Your task to perform on an android device: Show me popular videos on Youtube Image 0: 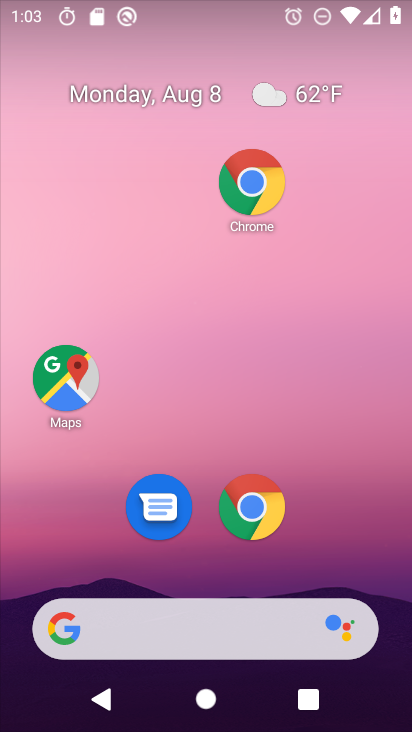
Step 0: drag from (337, 515) to (363, 55)
Your task to perform on an android device: Show me popular videos on Youtube Image 1: 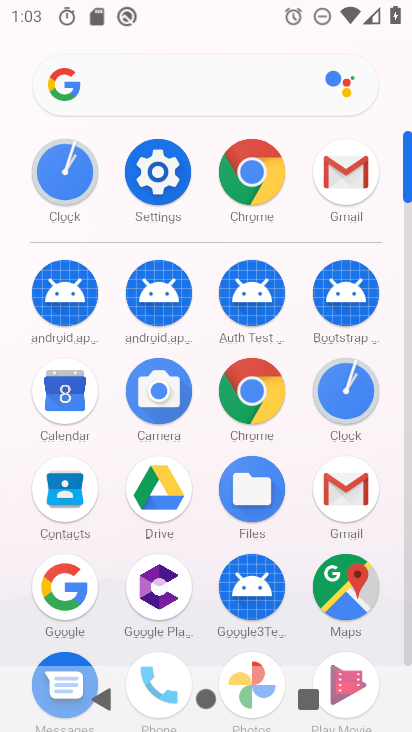
Step 1: drag from (297, 529) to (359, 111)
Your task to perform on an android device: Show me popular videos on Youtube Image 2: 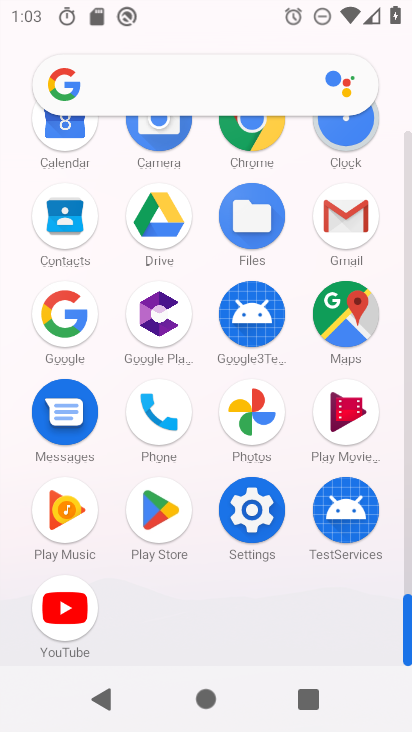
Step 2: click (78, 602)
Your task to perform on an android device: Show me popular videos on Youtube Image 3: 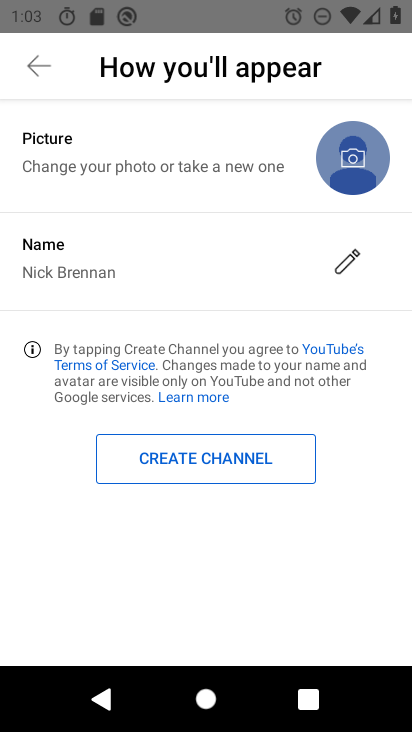
Step 3: press back button
Your task to perform on an android device: Show me popular videos on Youtube Image 4: 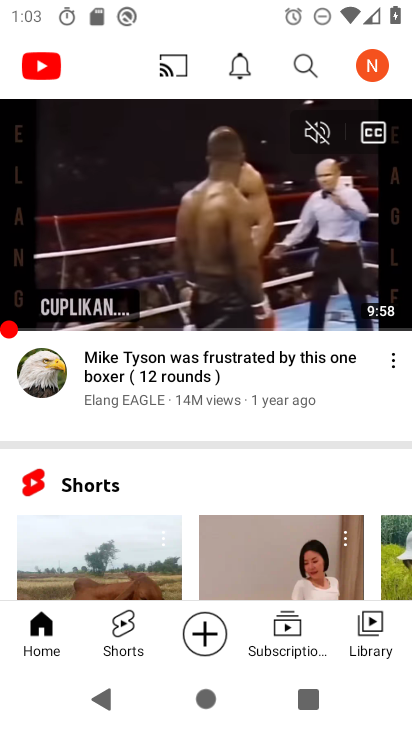
Step 4: drag from (134, 179) to (163, 530)
Your task to perform on an android device: Show me popular videos on Youtube Image 5: 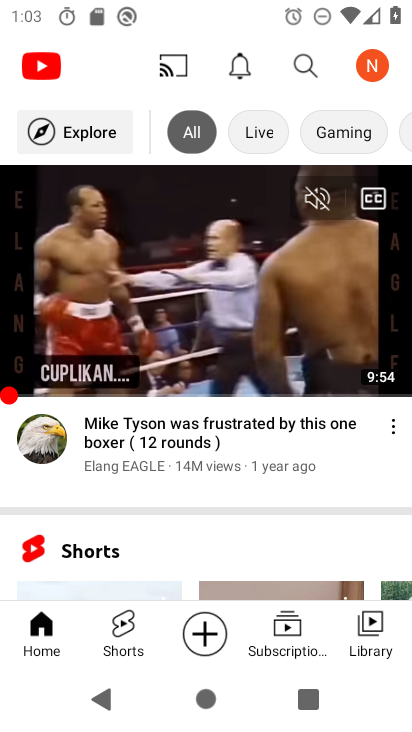
Step 5: click (76, 138)
Your task to perform on an android device: Show me popular videos on Youtube Image 6: 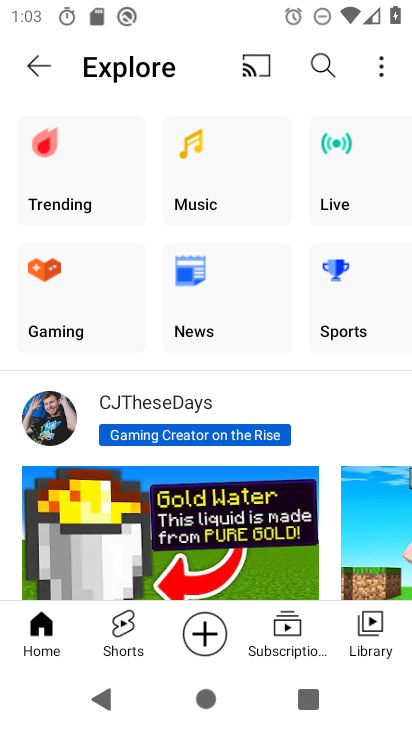
Step 6: task complete